Your task to perform on an android device: remove spam from my inbox in the gmail app Image 0: 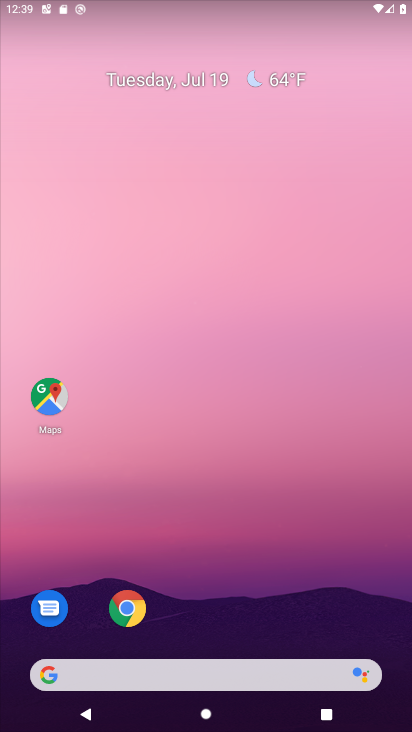
Step 0: drag from (179, 592) to (265, 30)
Your task to perform on an android device: remove spam from my inbox in the gmail app Image 1: 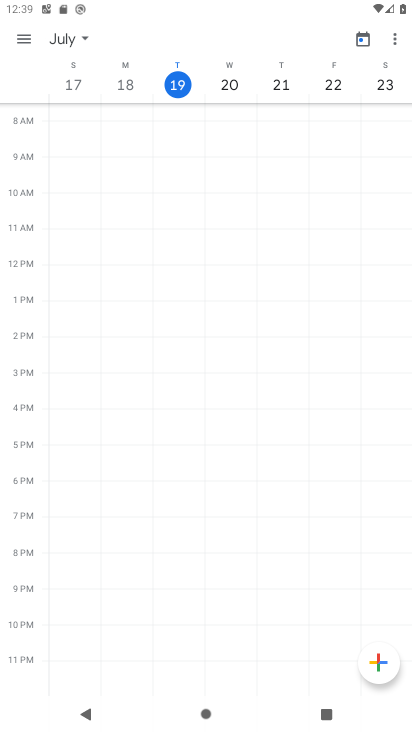
Step 1: press home button
Your task to perform on an android device: remove spam from my inbox in the gmail app Image 2: 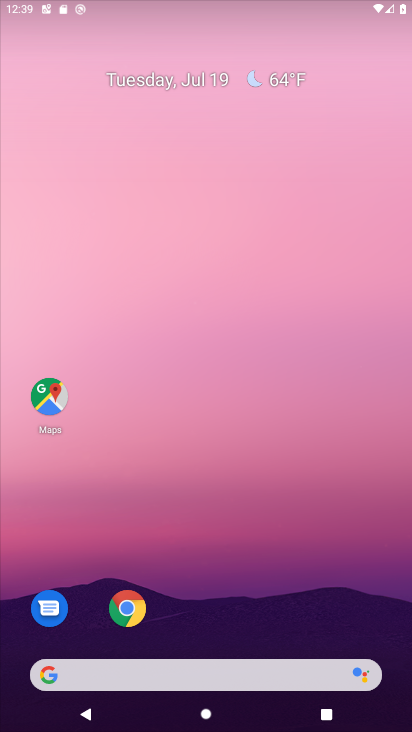
Step 2: drag from (198, 580) to (288, 49)
Your task to perform on an android device: remove spam from my inbox in the gmail app Image 3: 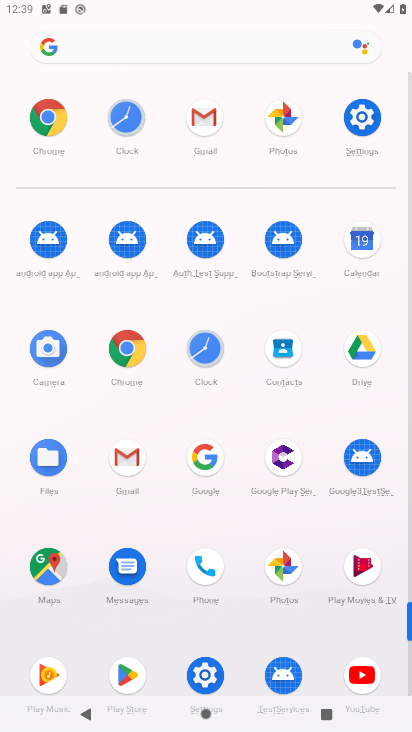
Step 3: click (125, 466)
Your task to perform on an android device: remove spam from my inbox in the gmail app Image 4: 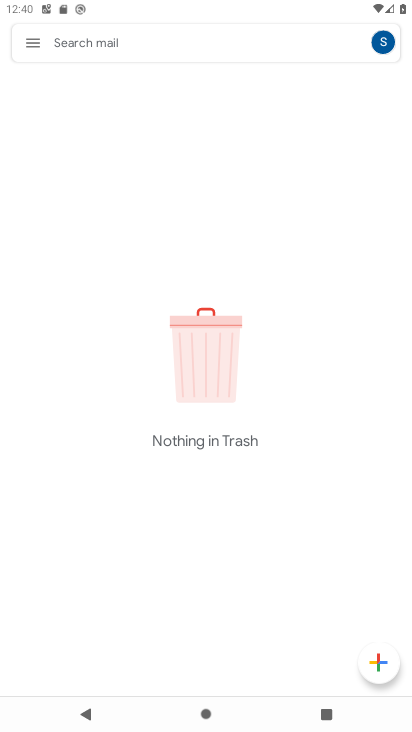
Step 4: click (35, 40)
Your task to perform on an android device: remove spam from my inbox in the gmail app Image 5: 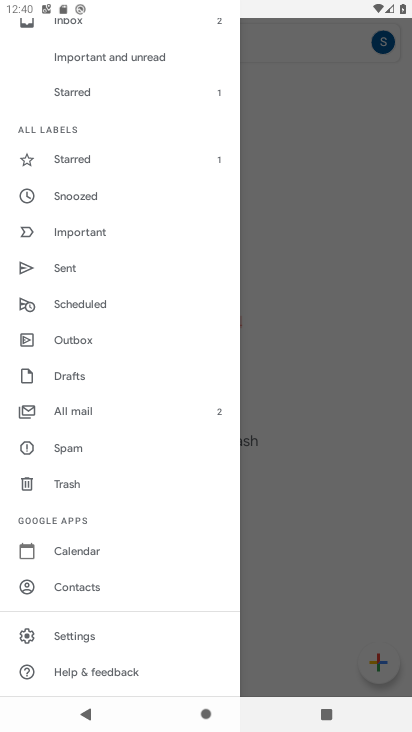
Step 5: click (84, 444)
Your task to perform on an android device: remove spam from my inbox in the gmail app Image 6: 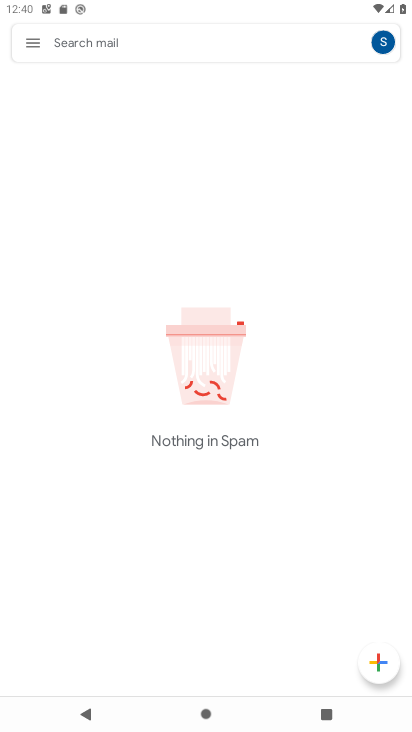
Step 6: task complete